Your task to perform on an android device: Google the capital of Venezuela Image 0: 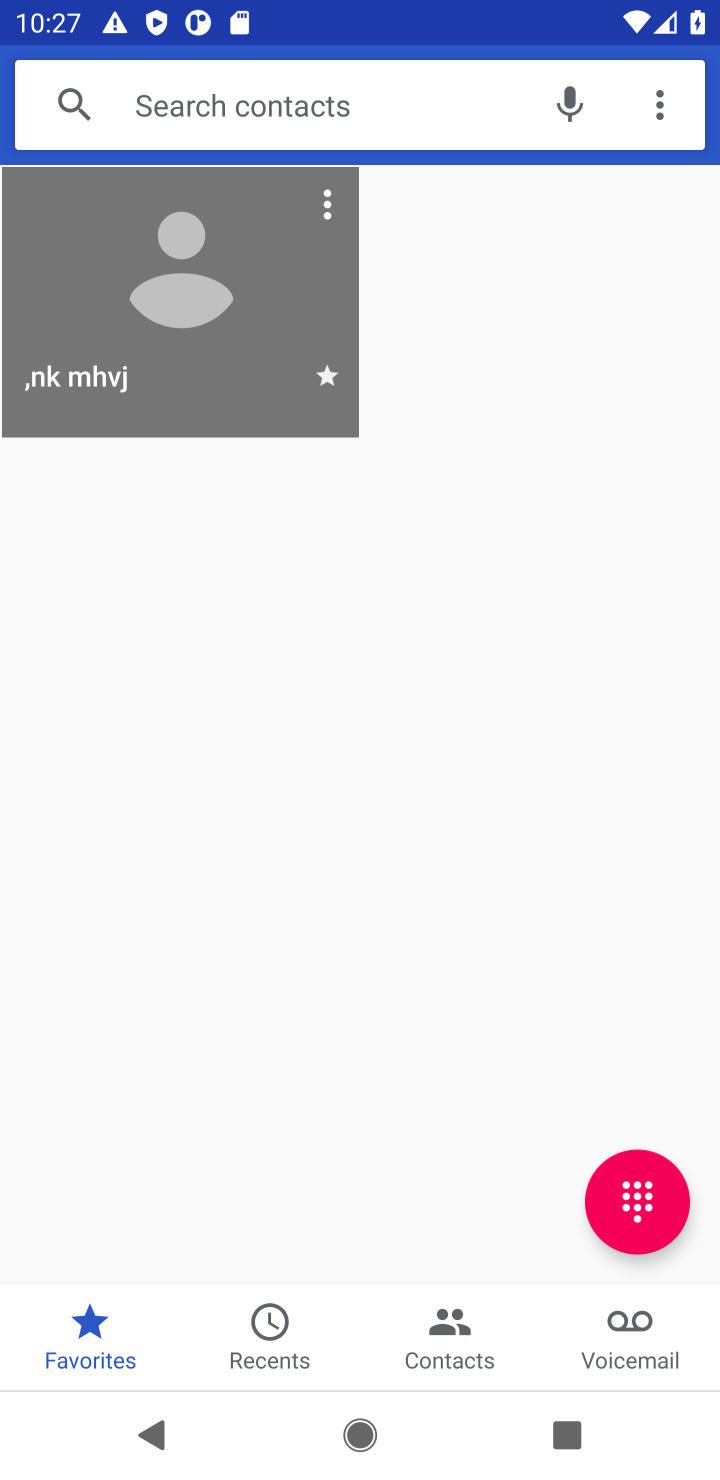
Step 0: press home button
Your task to perform on an android device: Google the capital of Venezuela Image 1: 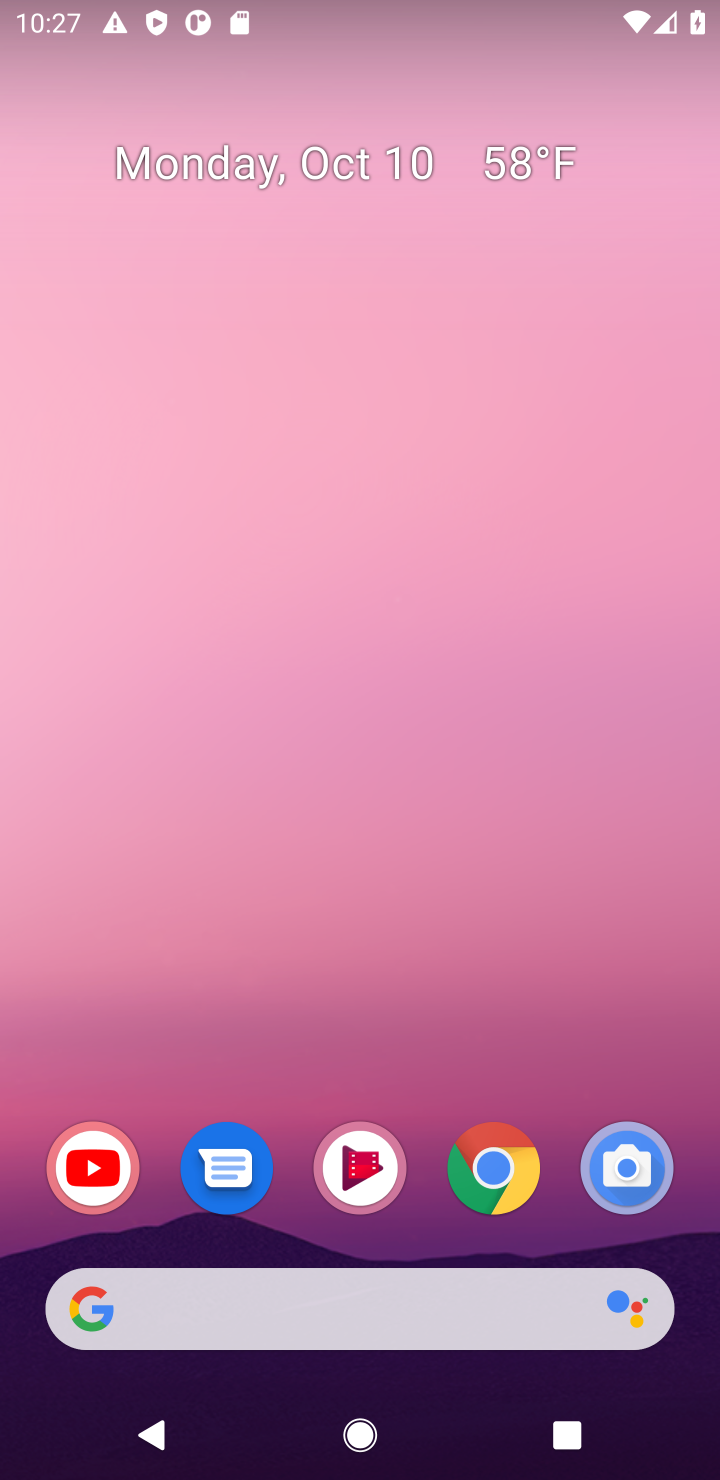
Step 1: click (418, 1325)
Your task to perform on an android device: Google the capital of Venezuela Image 2: 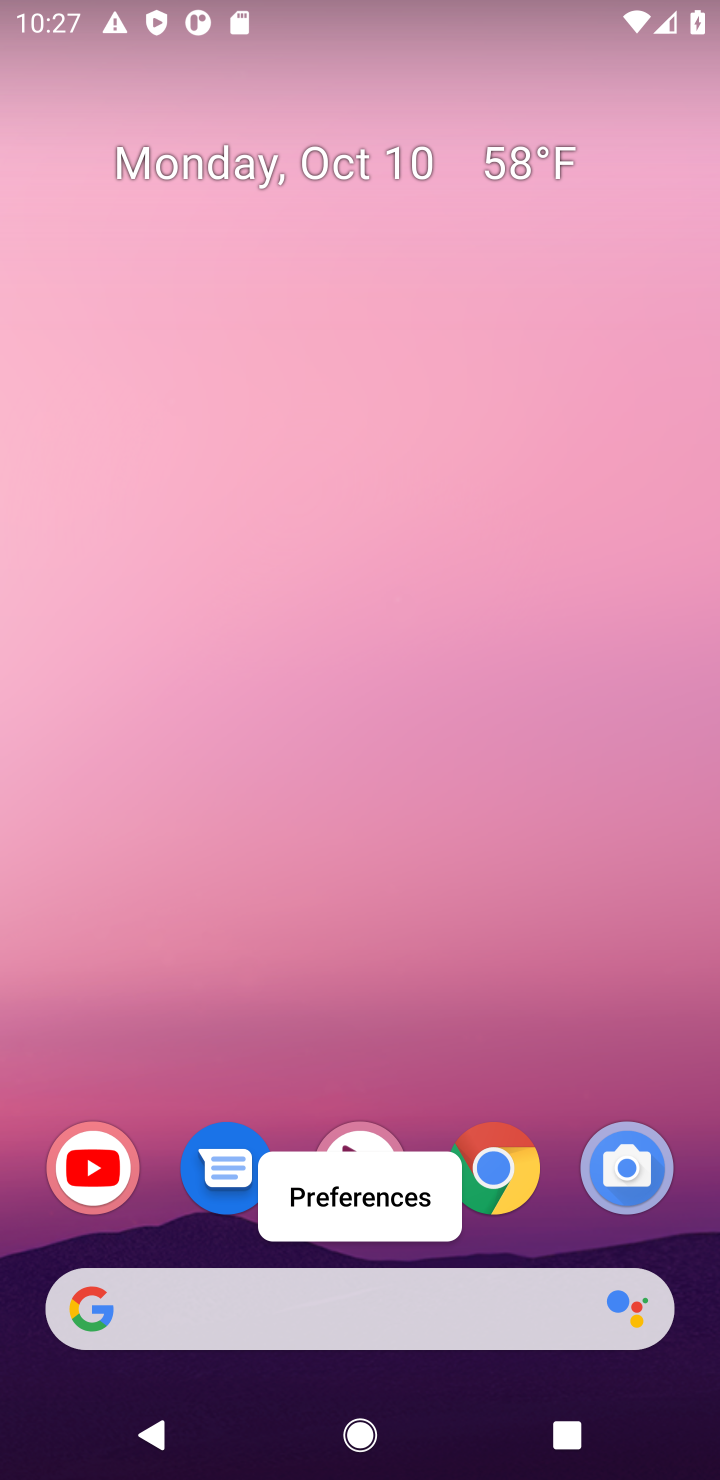
Step 2: click (407, 1318)
Your task to perform on an android device: Google the capital of Venezuela Image 3: 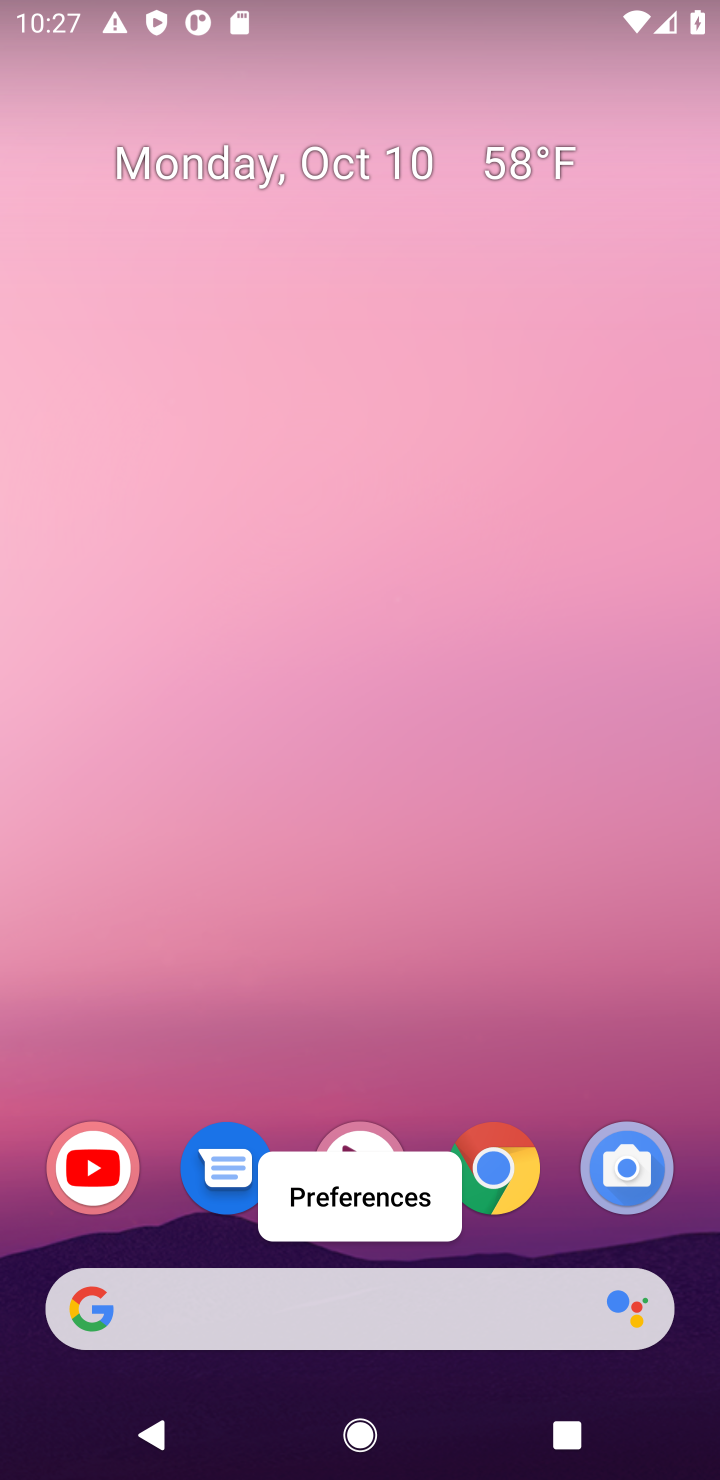
Step 3: click (407, 1314)
Your task to perform on an android device: Google the capital of Venezuela Image 4: 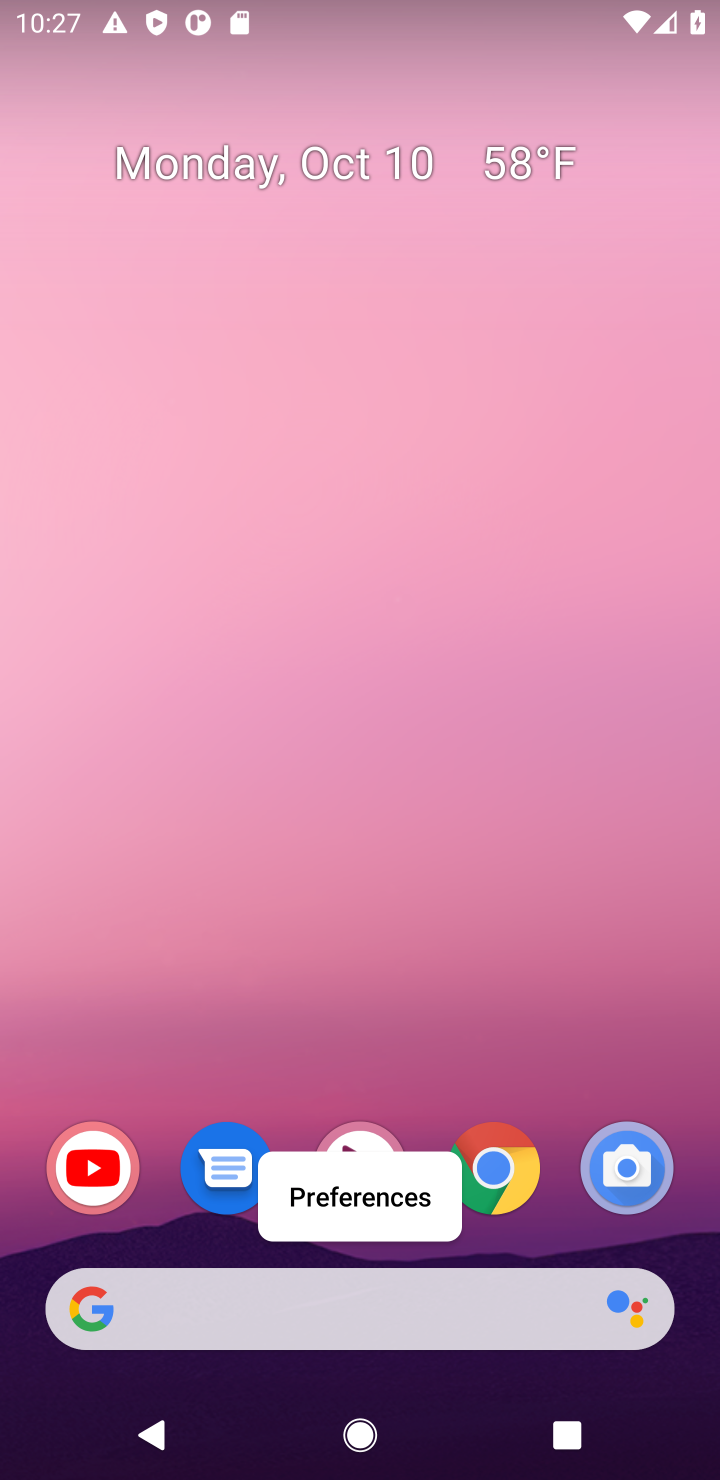
Step 4: click (407, 1314)
Your task to perform on an android device: Google the capital of Venezuela Image 5: 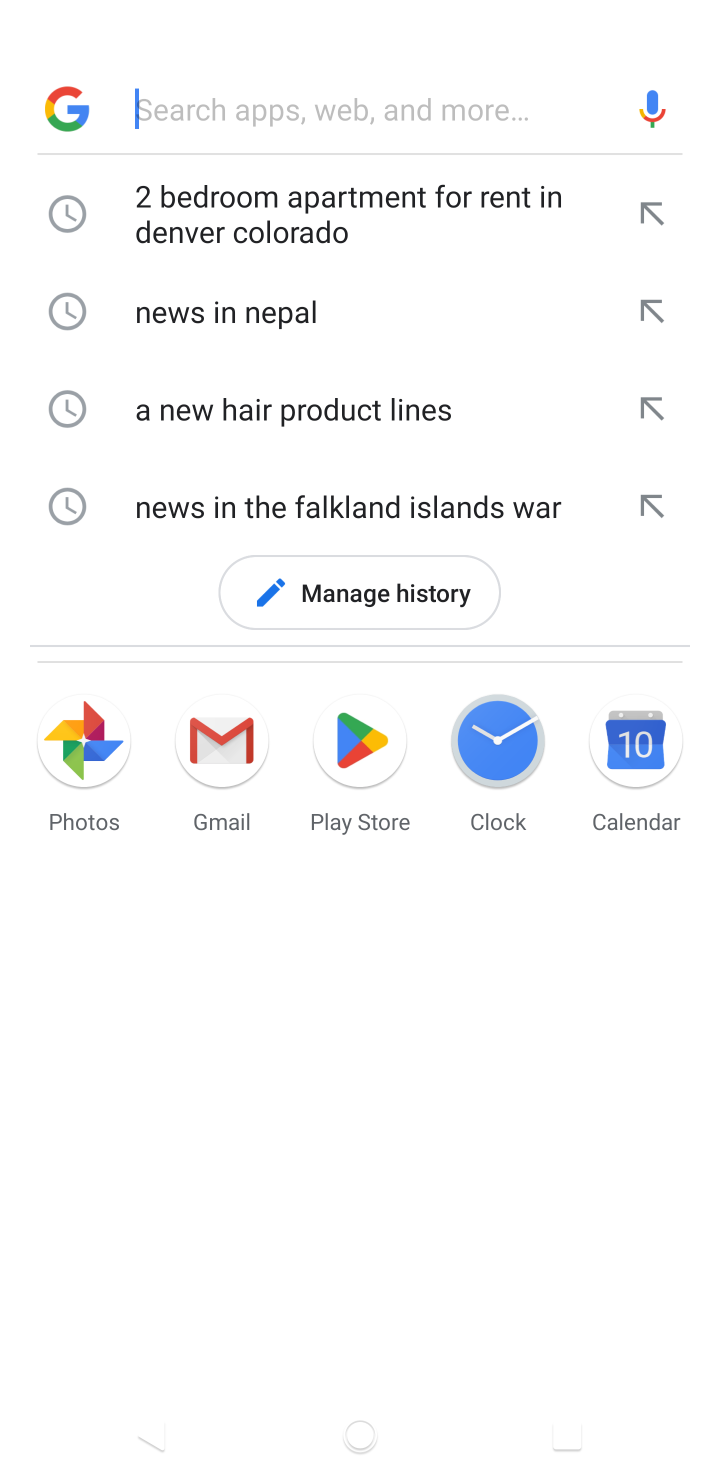
Step 5: click (407, 1314)
Your task to perform on an android device: Google the capital of Venezuela Image 6: 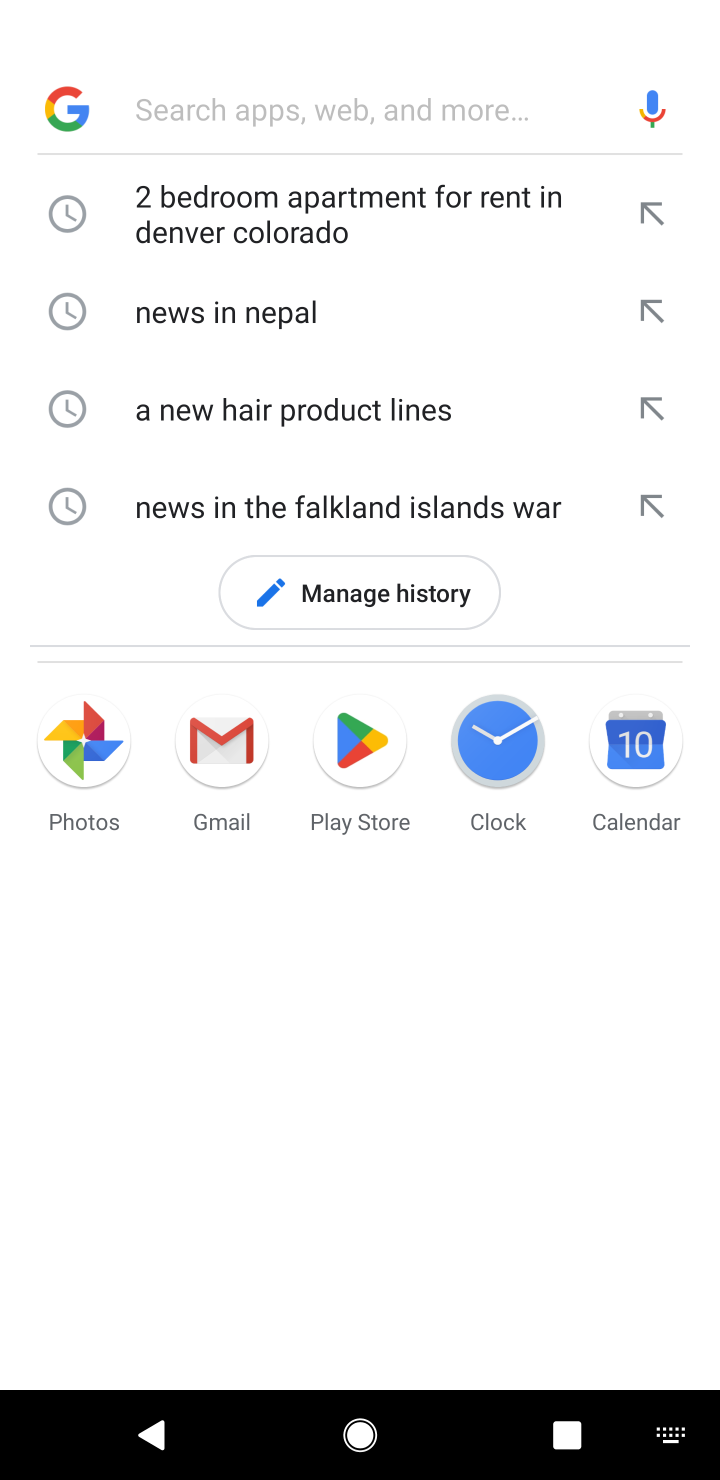
Step 6: type "capital of Venezuela"
Your task to perform on an android device: Google the capital of Venezuela Image 7: 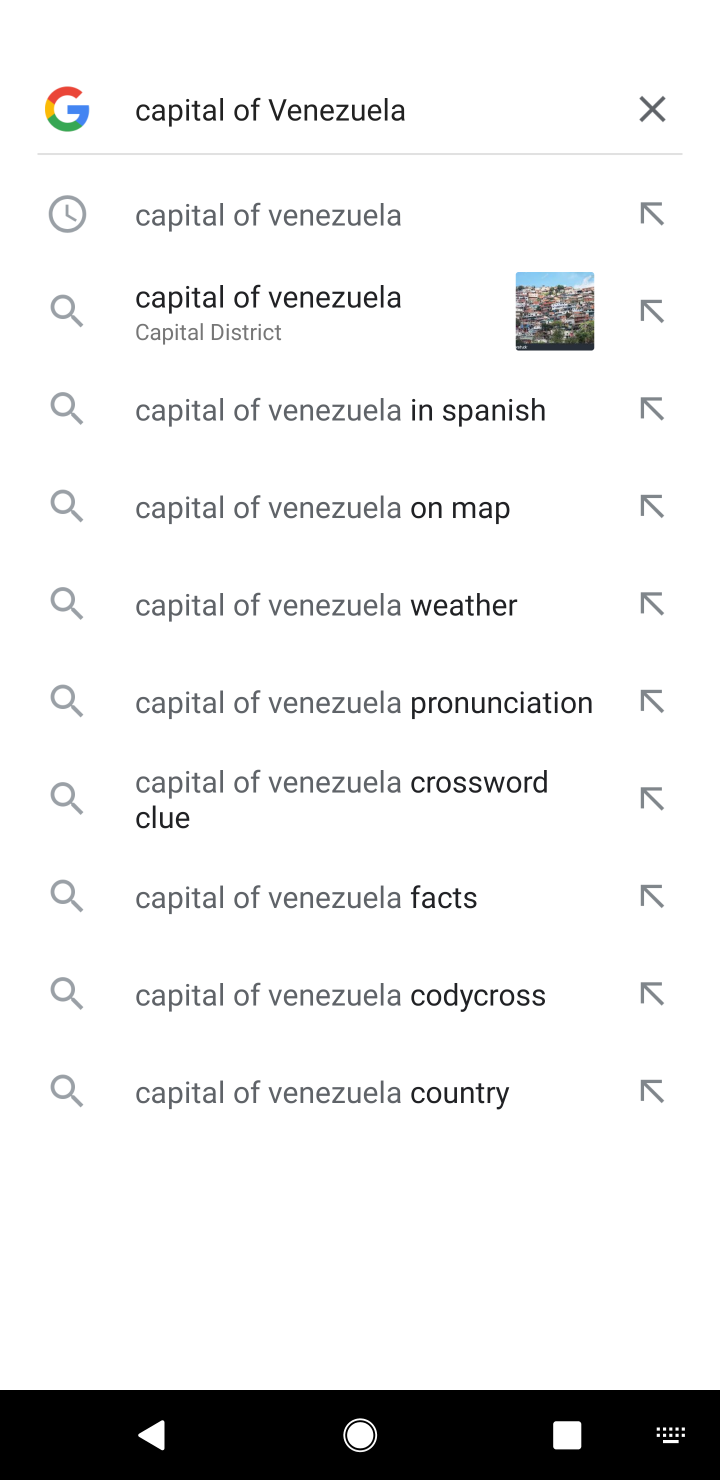
Step 7: type ""
Your task to perform on an android device: Google the capital of Venezuela Image 8: 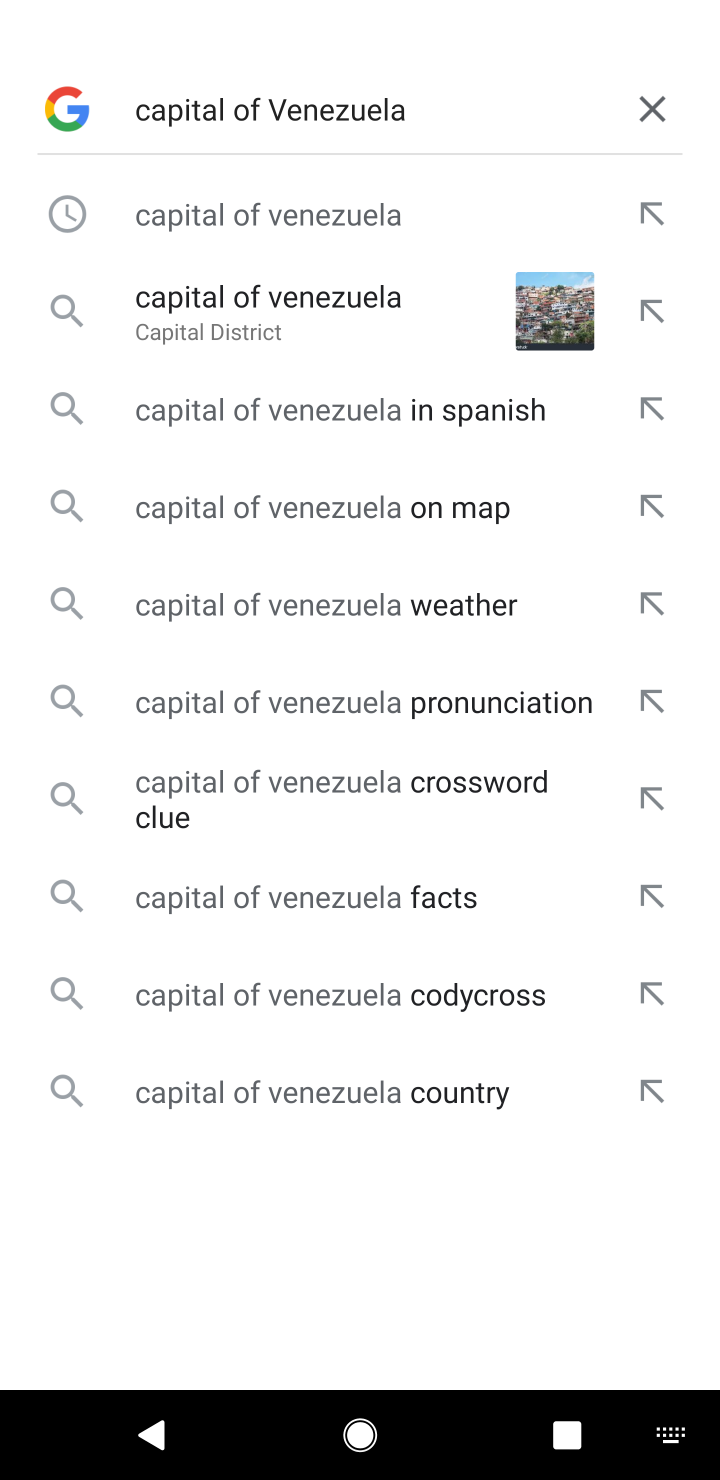
Step 8: click (380, 218)
Your task to perform on an android device: Google the capital of Venezuela Image 9: 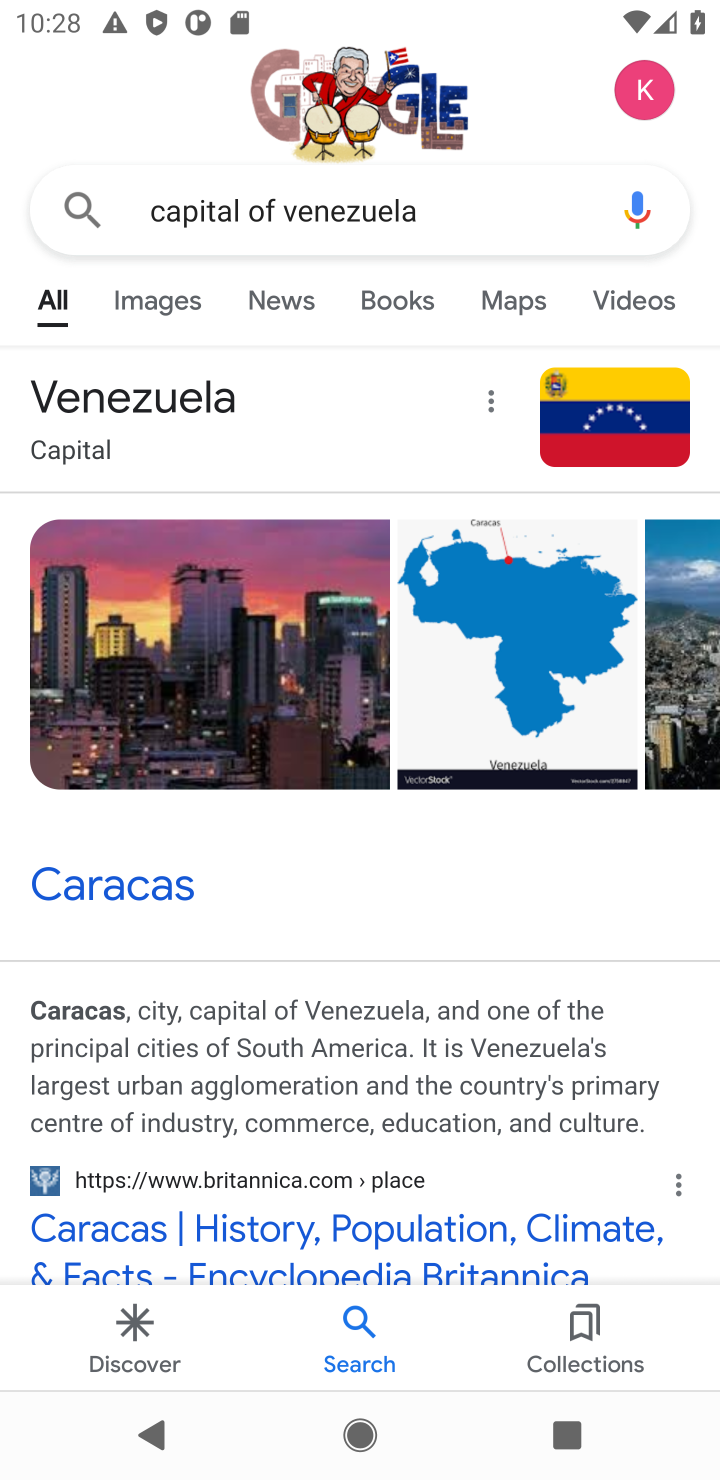
Step 9: task complete